Your task to perform on an android device: check google app version Image 0: 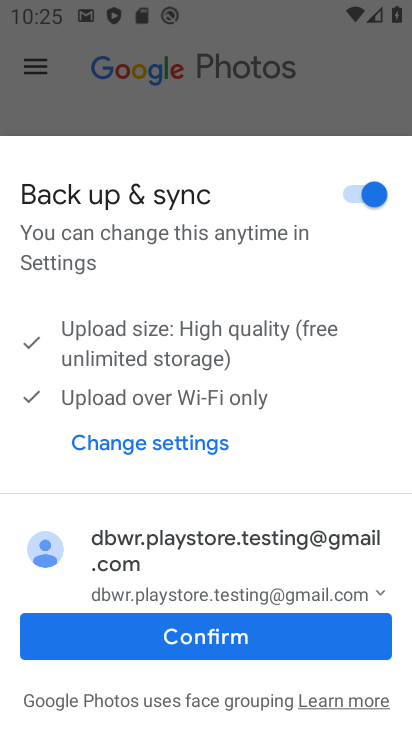
Step 0: press home button
Your task to perform on an android device: check google app version Image 1: 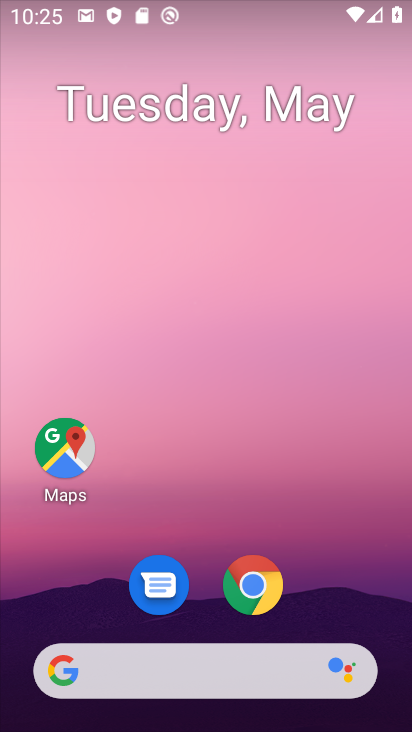
Step 1: click (215, 667)
Your task to perform on an android device: check google app version Image 2: 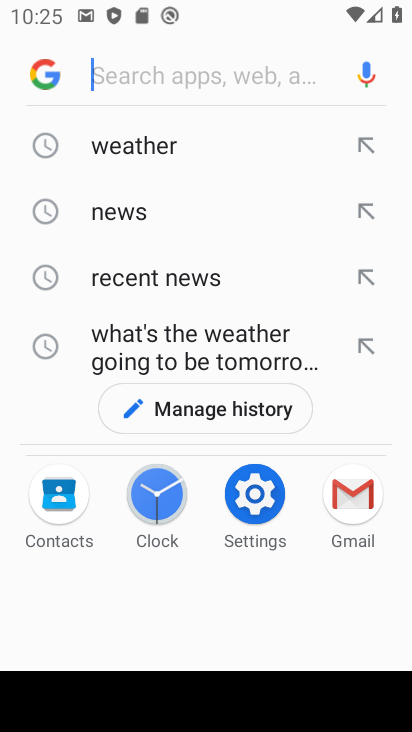
Step 2: click (46, 64)
Your task to perform on an android device: check google app version Image 3: 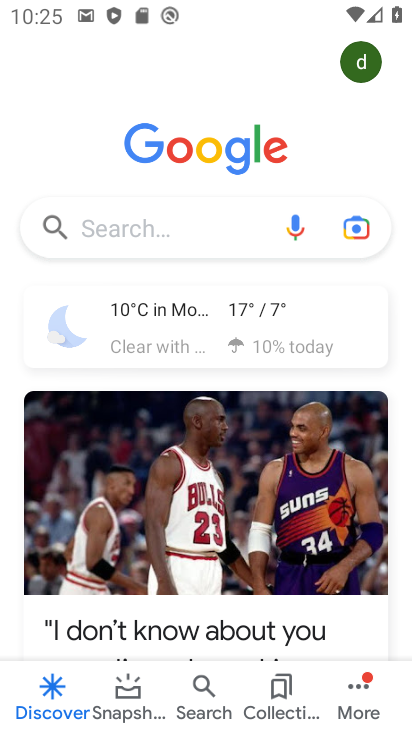
Step 3: click (354, 680)
Your task to perform on an android device: check google app version Image 4: 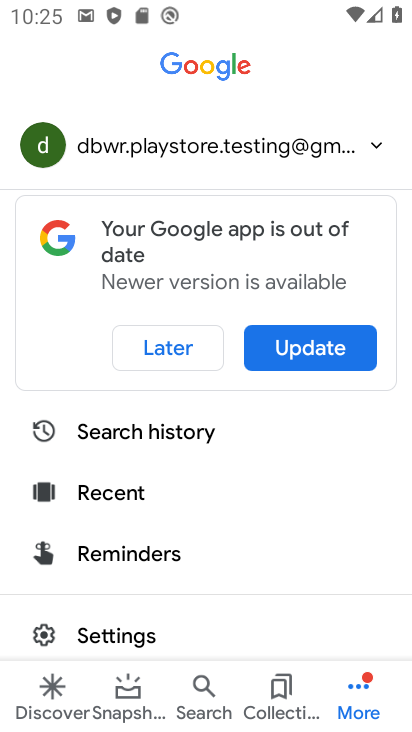
Step 4: click (170, 627)
Your task to perform on an android device: check google app version Image 5: 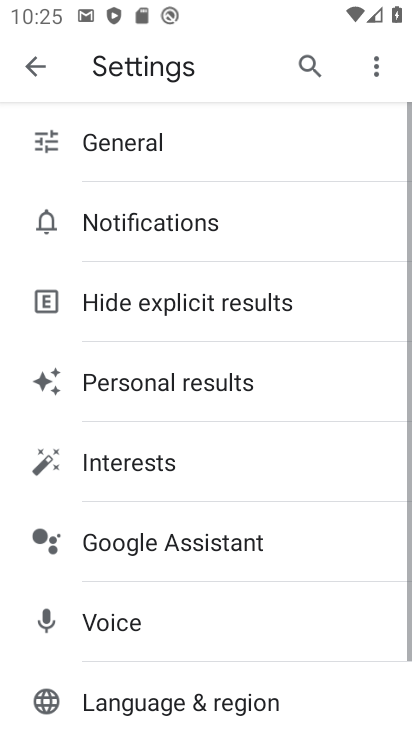
Step 5: drag from (217, 629) to (308, 230)
Your task to perform on an android device: check google app version Image 6: 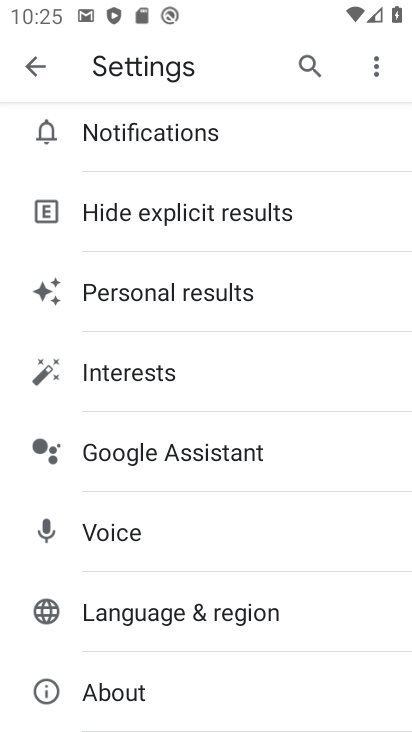
Step 6: click (133, 691)
Your task to perform on an android device: check google app version Image 7: 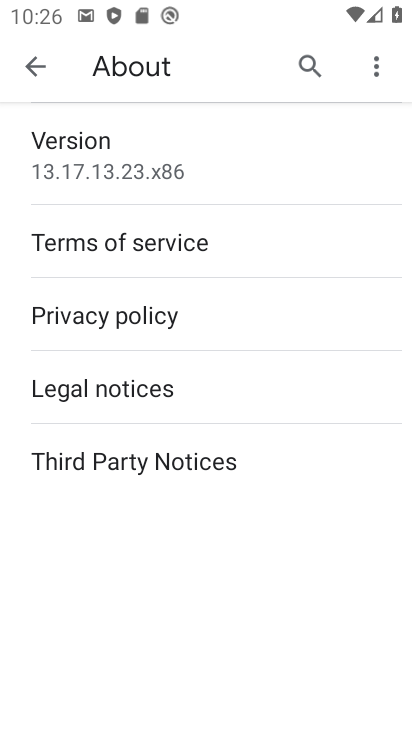
Step 7: task complete